Your task to perform on an android device: turn on javascript in the chrome app Image 0: 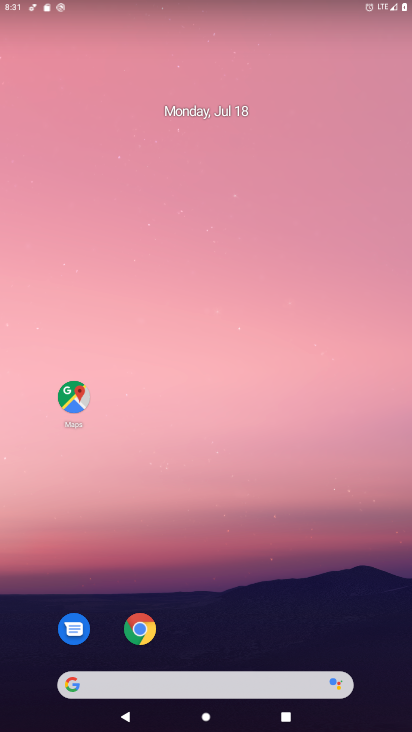
Step 0: click (142, 643)
Your task to perform on an android device: turn on javascript in the chrome app Image 1: 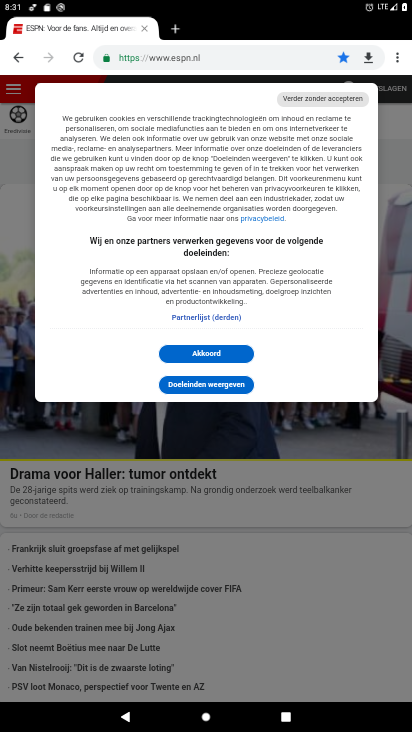
Step 1: click (393, 56)
Your task to perform on an android device: turn on javascript in the chrome app Image 2: 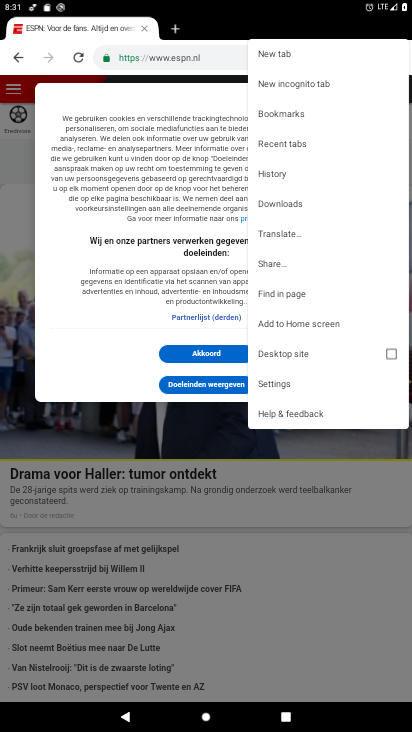
Step 2: click (282, 386)
Your task to perform on an android device: turn on javascript in the chrome app Image 3: 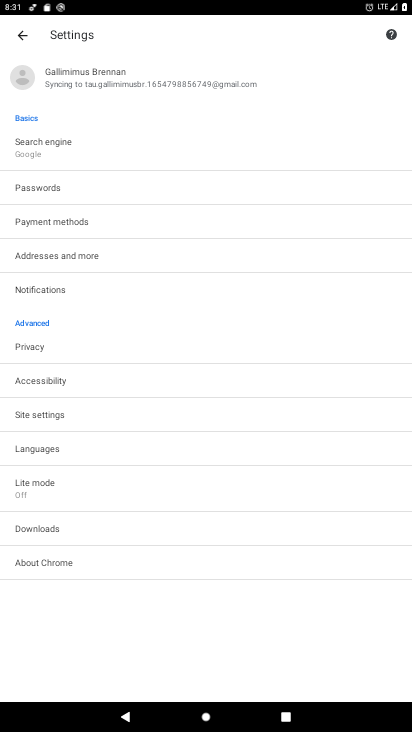
Step 3: click (59, 421)
Your task to perform on an android device: turn on javascript in the chrome app Image 4: 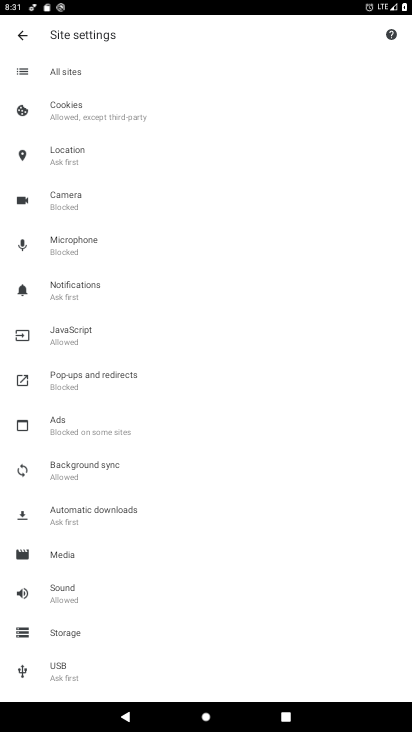
Step 4: click (68, 336)
Your task to perform on an android device: turn on javascript in the chrome app Image 5: 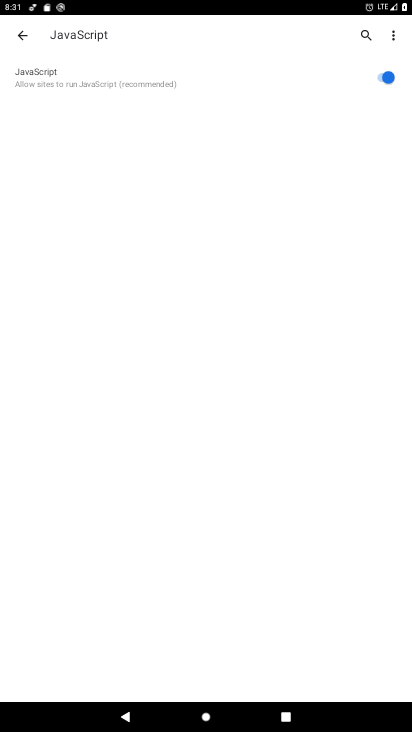
Step 5: task complete